Your task to perform on an android device: Go to privacy settings Image 0: 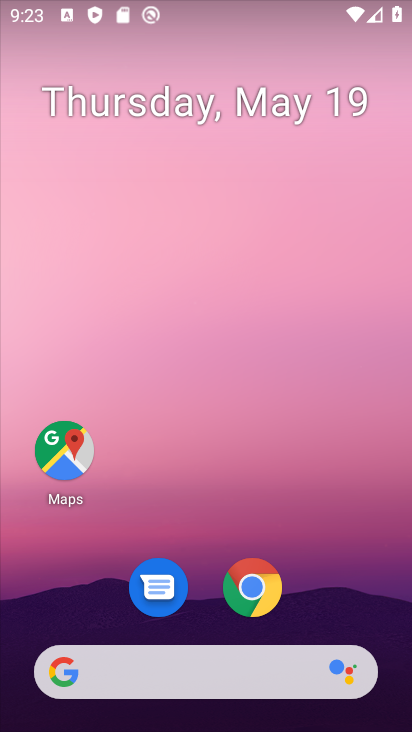
Step 0: drag from (314, 559) to (270, 61)
Your task to perform on an android device: Go to privacy settings Image 1: 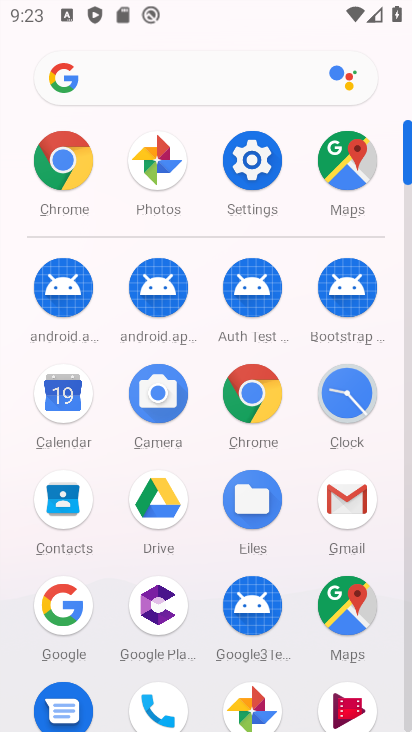
Step 1: click (267, 169)
Your task to perform on an android device: Go to privacy settings Image 2: 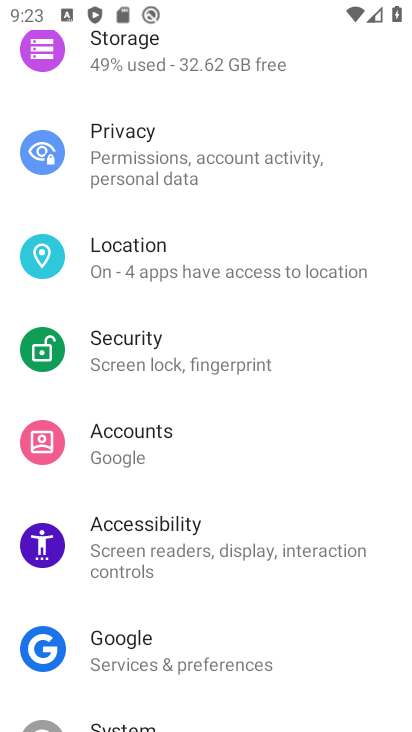
Step 2: click (266, 169)
Your task to perform on an android device: Go to privacy settings Image 3: 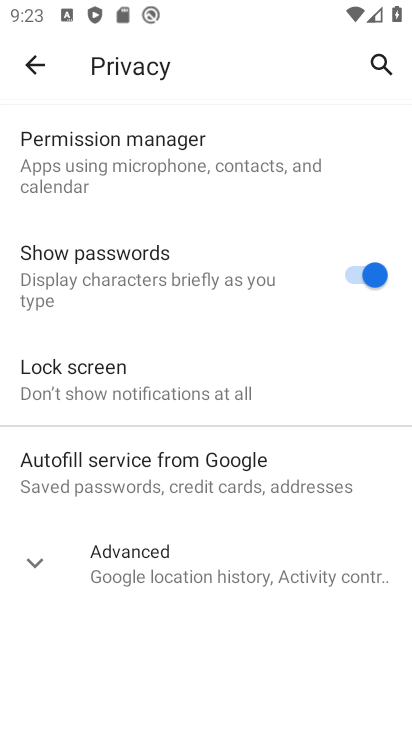
Step 3: task complete